Your task to perform on an android device: allow notifications from all sites in the chrome app Image 0: 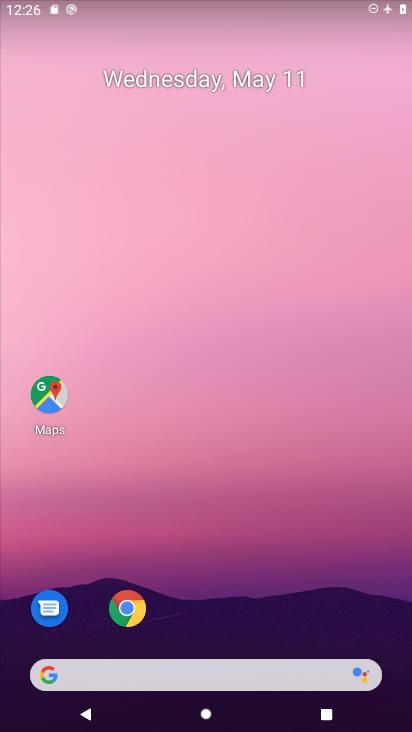
Step 0: drag from (310, 621) to (348, 101)
Your task to perform on an android device: allow notifications from all sites in the chrome app Image 1: 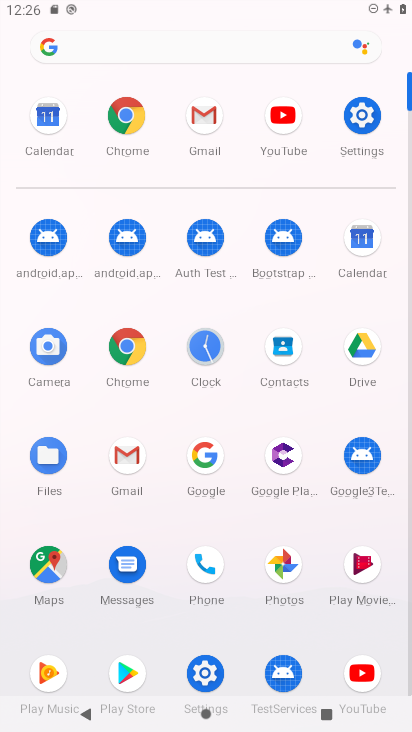
Step 1: click (131, 118)
Your task to perform on an android device: allow notifications from all sites in the chrome app Image 2: 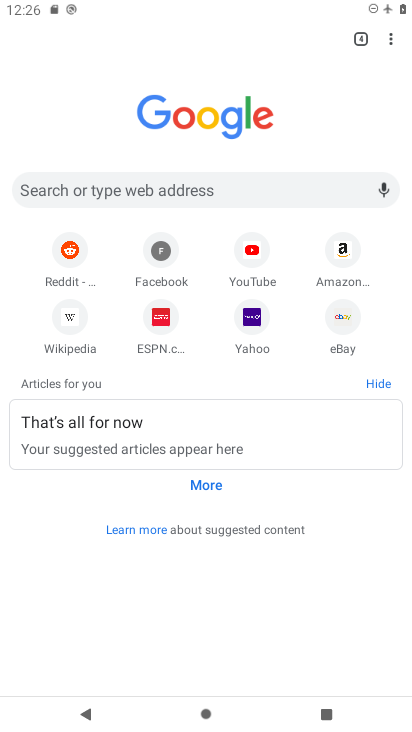
Step 2: click (390, 44)
Your task to perform on an android device: allow notifications from all sites in the chrome app Image 3: 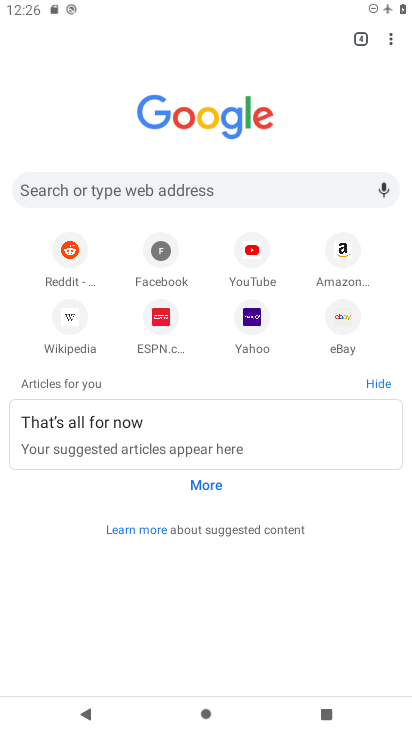
Step 3: click (390, 44)
Your task to perform on an android device: allow notifications from all sites in the chrome app Image 4: 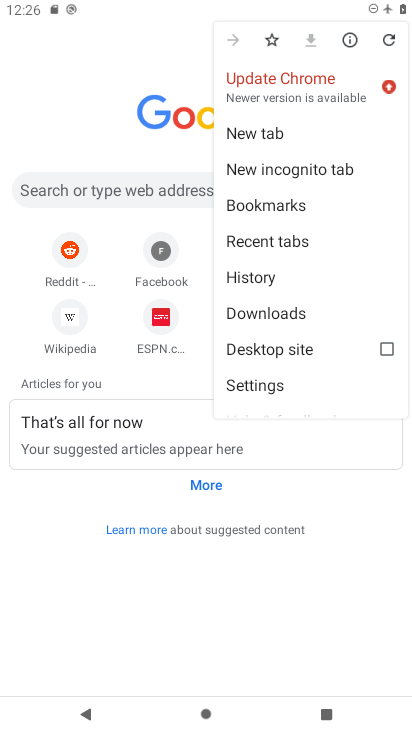
Step 4: click (280, 381)
Your task to perform on an android device: allow notifications from all sites in the chrome app Image 5: 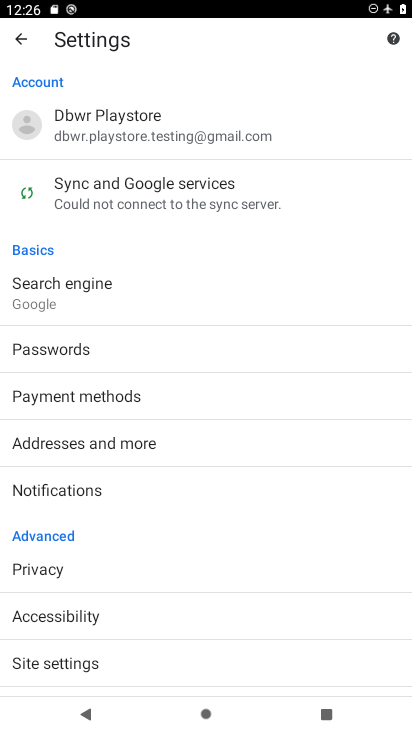
Step 5: click (211, 481)
Your task to perform on an android device: allow notifications from all sites in the chrome app Image 6: 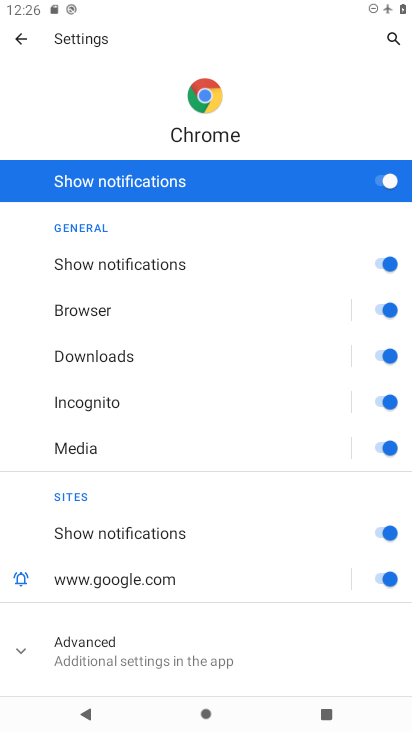
Step 6: task complete